Your task to perform on an android device: check the backup settings in the google photos Image 0: 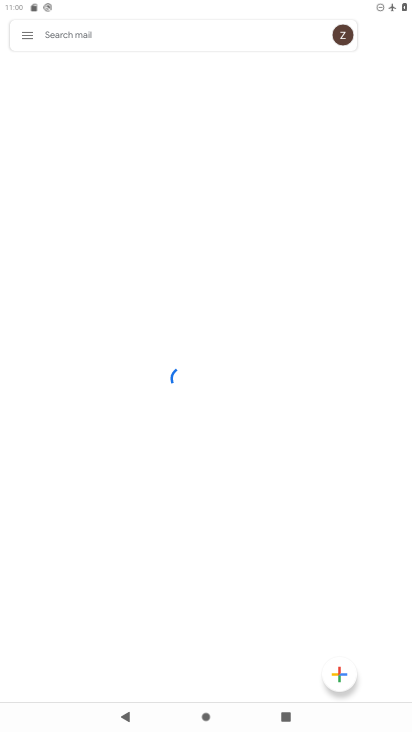
Step 0: press home button
Your task to perform on an android device: check the backup settings in the google photos Image 1: 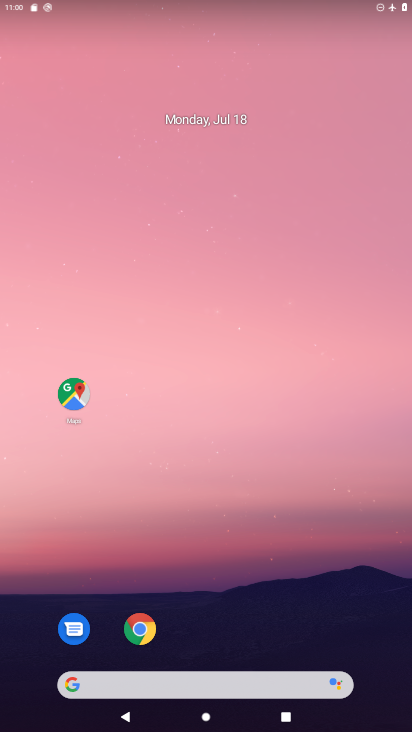
Step 1: drag from (303, 539) to (229, 60)
Your task to perform on an android device: check the backup settings in the google photos Image 2: 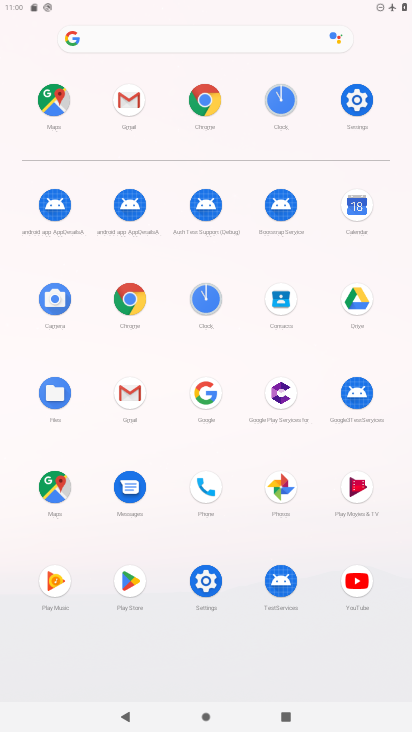
Step 2: click (290, 488)
Your task to perform on an android device: check the backup settings in the google photos Image 3: 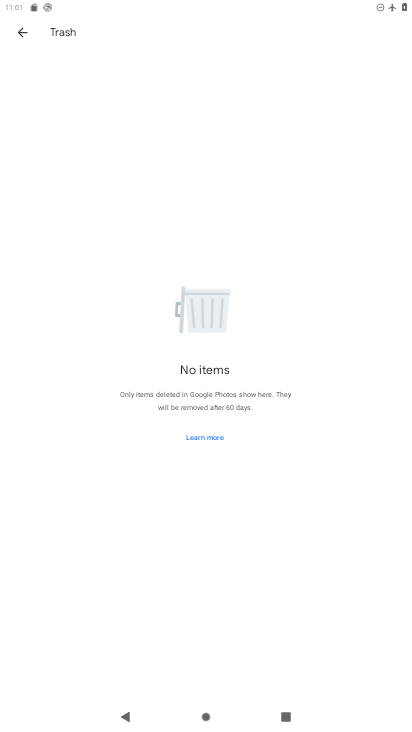
Step 3: click (24, 28)
Your task to perform on an android device: check the backup settings in the google photos Image 4: 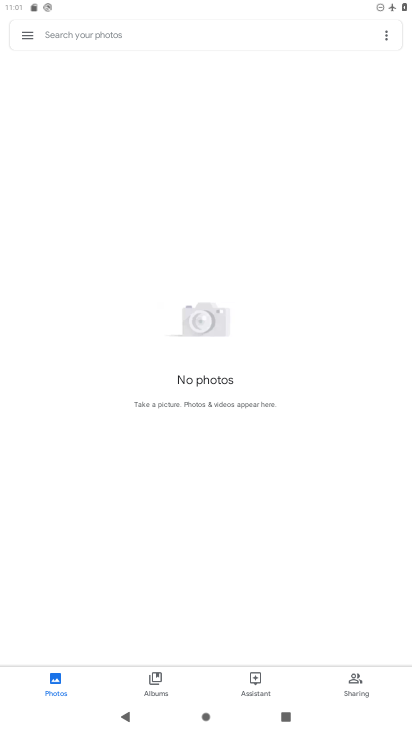
Step 4: click (28, 33)
Your task to perform on an android device: check the backup settings in the google photos Image 5: 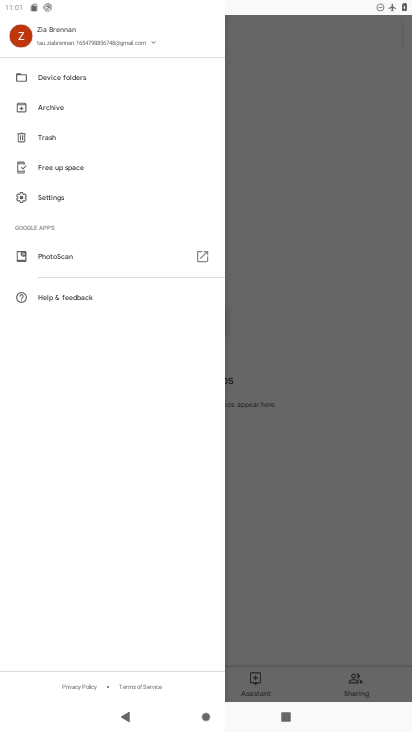
Step 5: click (57, 199)
Your task to perform on an android device: check the backup settings in the google photos Image 6: 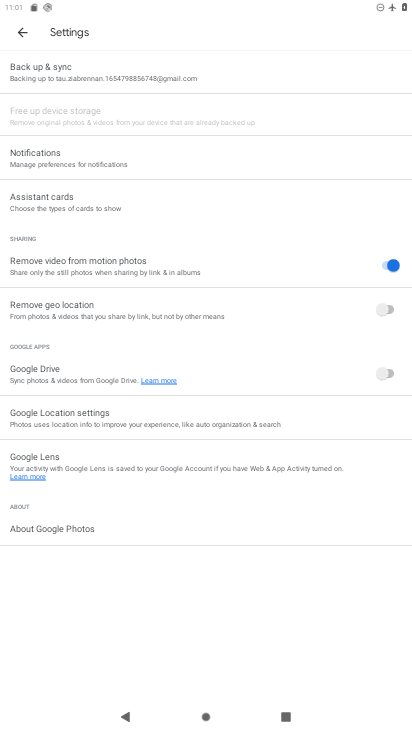
Step 6: click (133, 71)
Your task to perform on an android device: check the backup settings in the google photos Image 7: 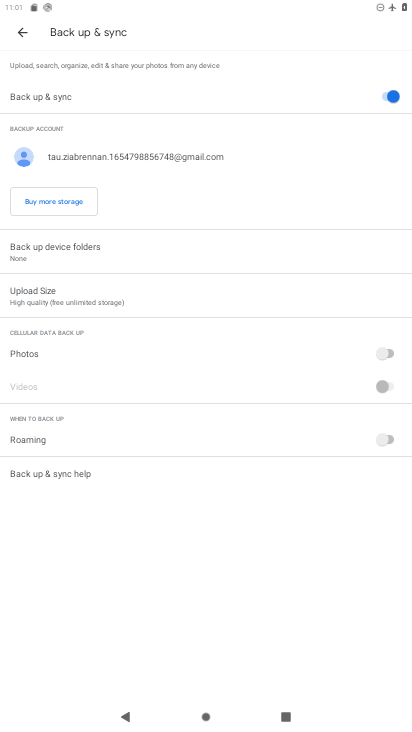
Step 7: task complete